Your task to perform on an android device: set the timer Image 0: 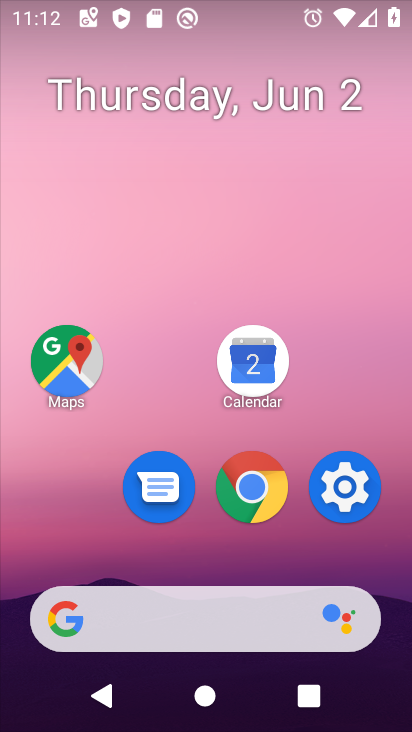
Step 0: press home button
Your task to perform on an android device: set the timer Image 1: 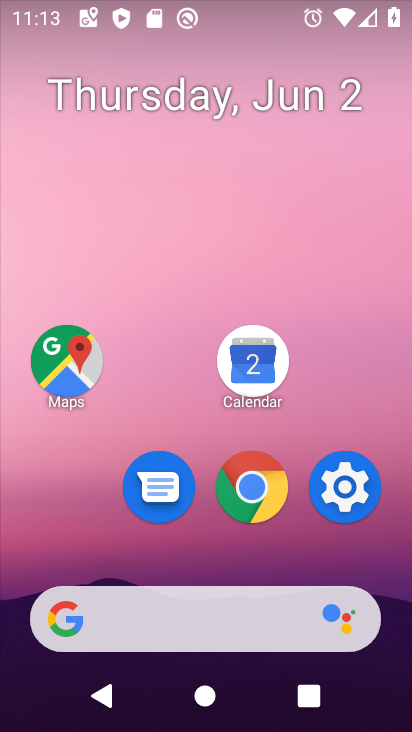
Step 1: drag from (314, 640) to (232, 150)
Your task to perform on an android device: set the timer Image 2: 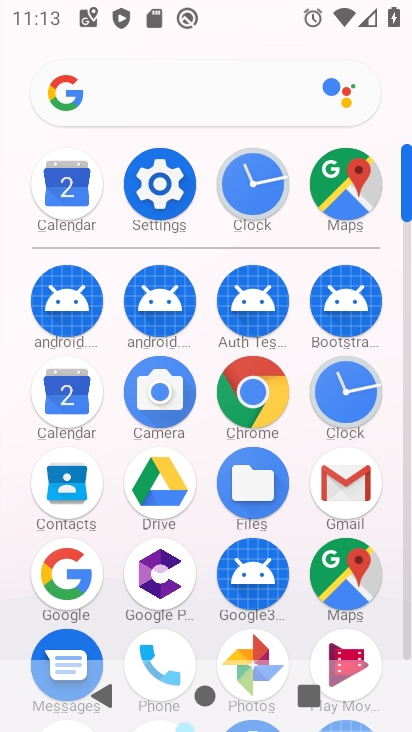
Step 2: click (246, 194)
Your task to perform on an android device: set the timer Image 3: 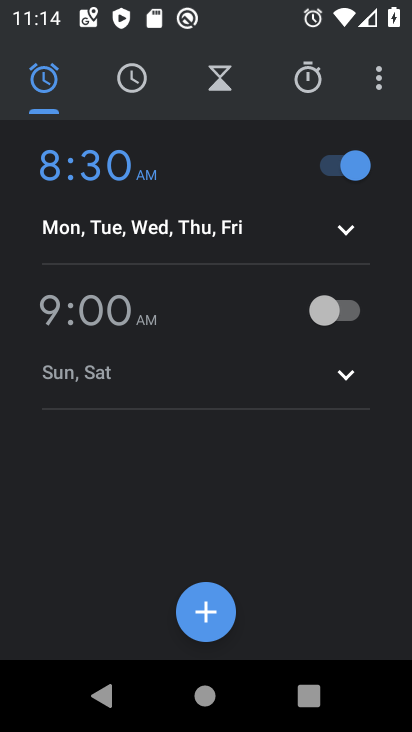
Step 3: click (380, 84)
Your task to perform on an android device: set the timer Image 4: 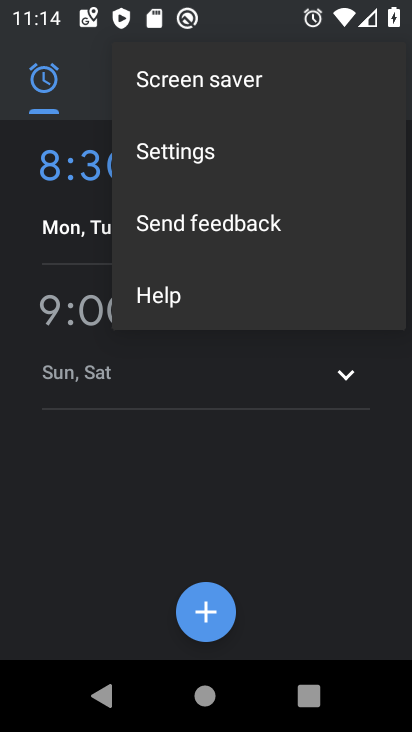
Step 4: click (223, 160)
Your task to perform on an android device: set the timer Image 5: 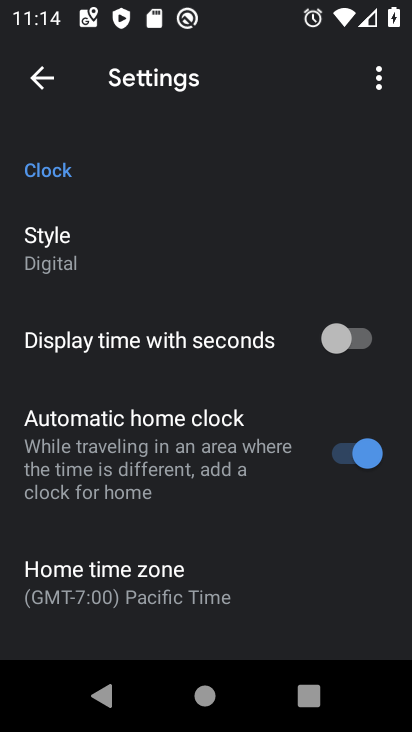
Step 5: drag from (167, 519) to (80, 210)
Your task to perform on an android device: set the timer Image 6: 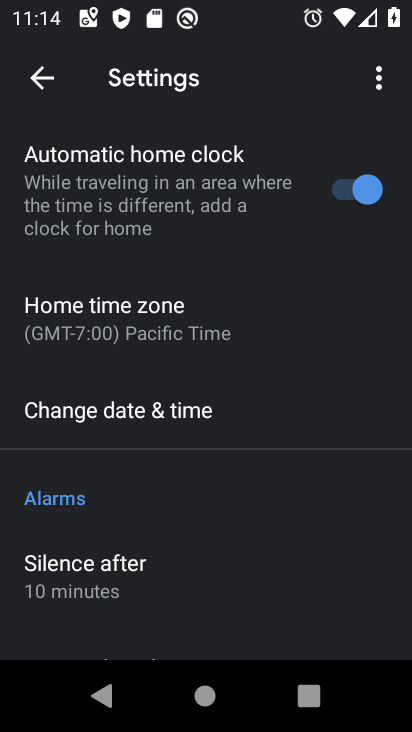
Step 6: drag from (150, 569) to (111, 196)
Your task to perform on an android device: set the timer Image 7: 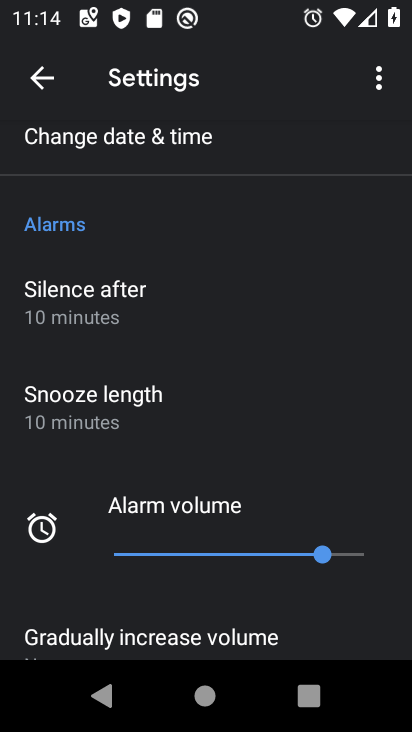
Step 7: drag from (145, 329) to (116, 155)
Your task to perform on an android device: set the timer Image 8: 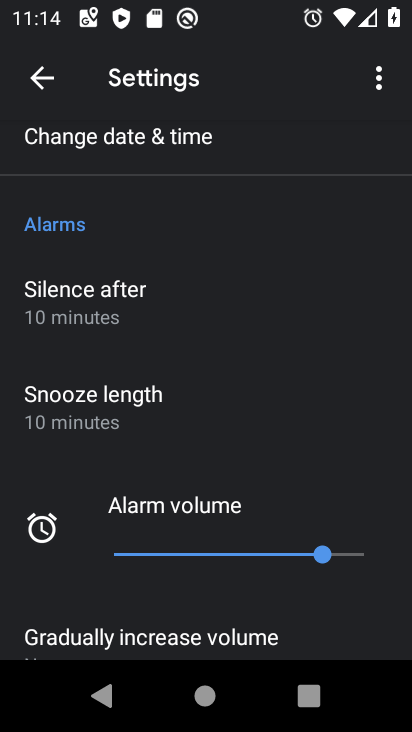
Step 8: drag from (154, 426) to (150, 174)
Your task to perform on an android device: set the timer Image 9: 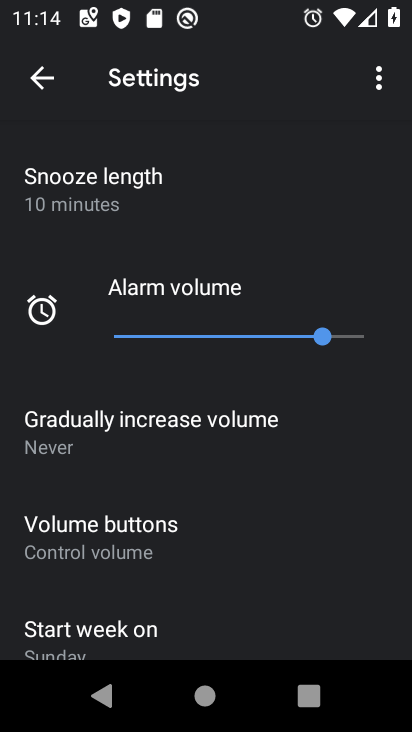
Step 9: drag from (164, 590) to (166, 209)
Your task to perform on an android device: set the timer Image 10: 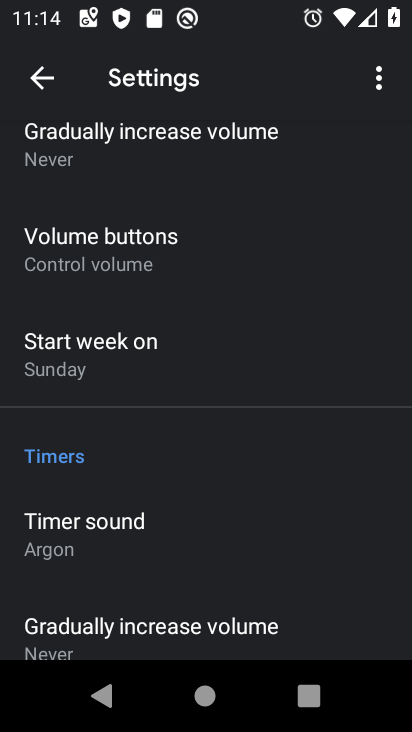
Step 10: click (128, 527)
Your task to perform on an android device: set the timer Image 11: 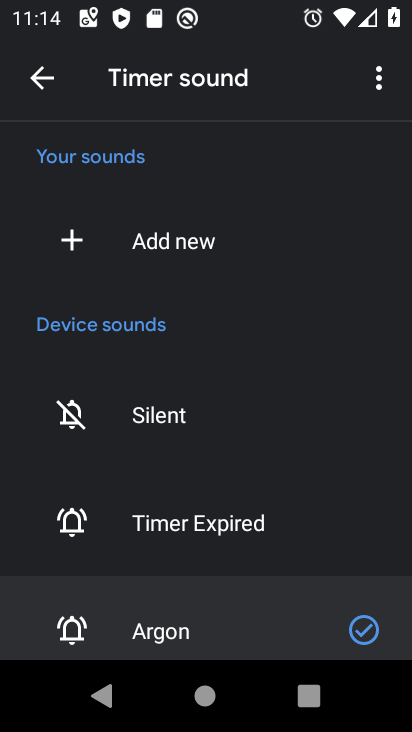
Step 11: click (208, 542)
Your task to perform on an android device: set the timer Image 12: 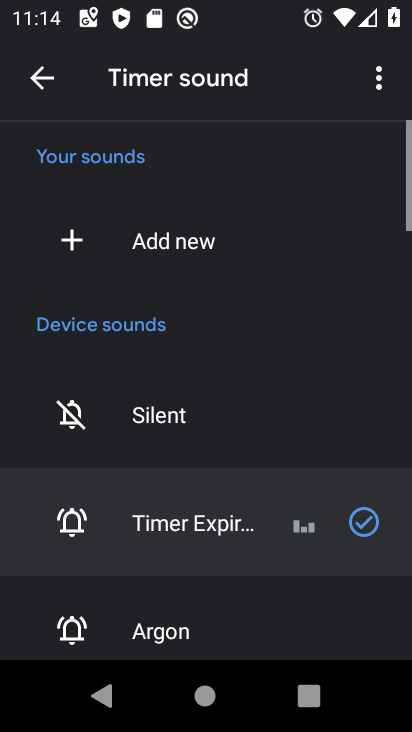
Step 12: task complete